Your task to perform on an android device: change keyboard looks Image 0: 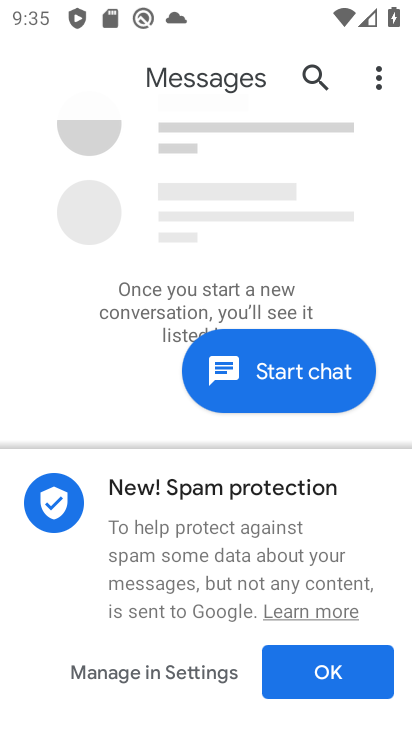
Step 0: press home button
Your task to perform on an android device: change keyboard looks Image 1: 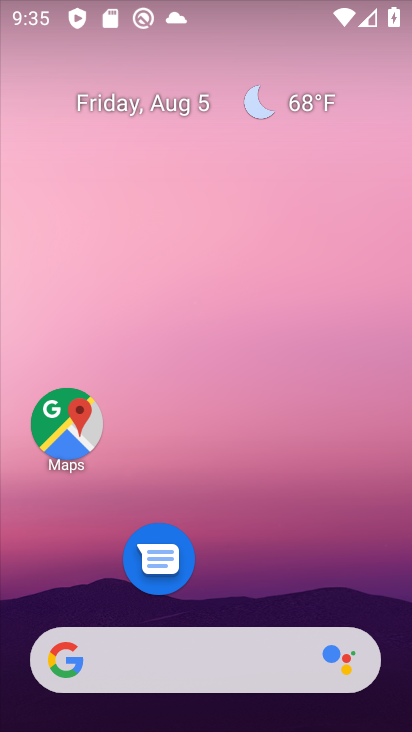
Step 1: drag from (256, 606) to (295, 83)
Your task to perform on an android device: change keyboard looks Image 2: 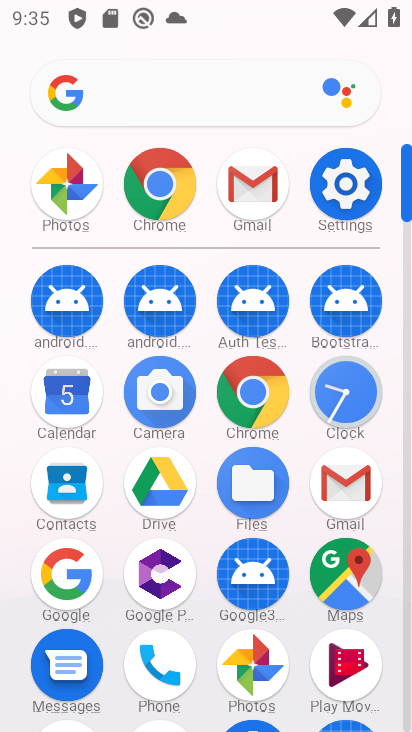
Step 2: click (366, 193)
Your task to perform on an android device: change keyboard looks Image 3: 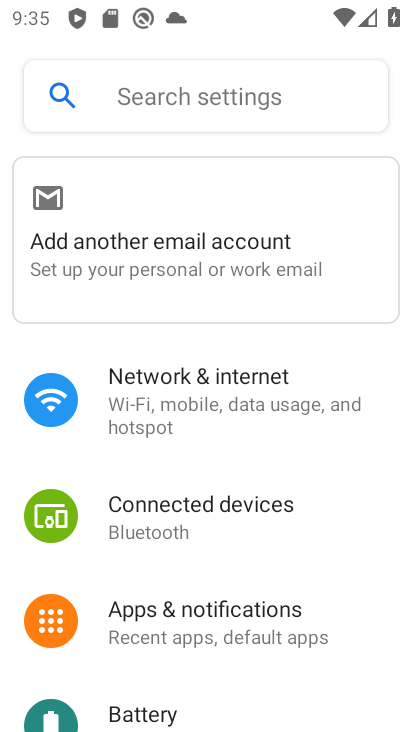
Step 3: drag from (285, 428) to (290, 235)
Your task to perform on an android device: change keyboard looks Image 4: 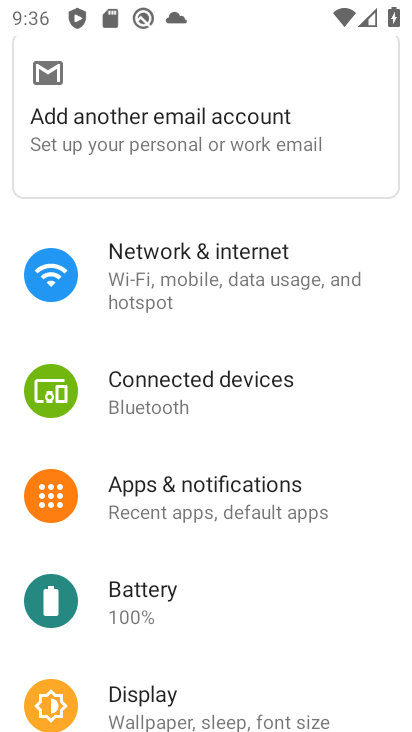
Step 4: drag from (234, 608) to (269, 309)
Your task to perform on an android device: change keyboard looks Image 5: 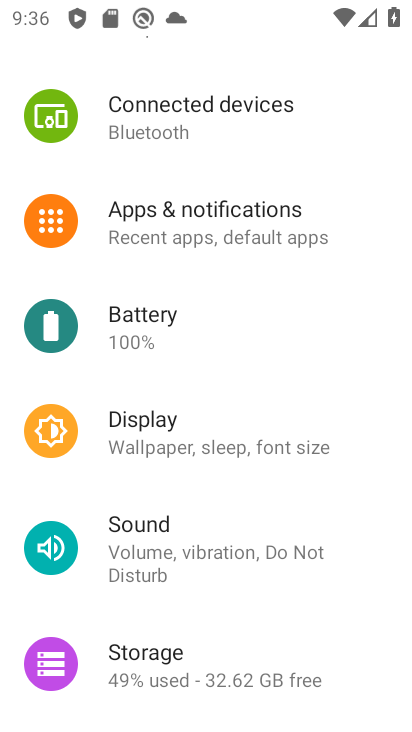
Step 5: drag from (157, 599) to (163, 288)
Your task to perform on an android device: change keyboard looks Image 6: 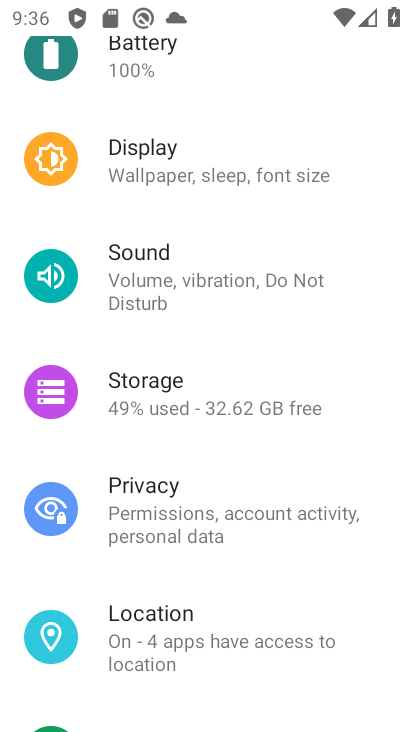
Step 6: drag from (171, 323) to (178, 690)
Your task to perform on an android device: change keyboard looks Image 7: 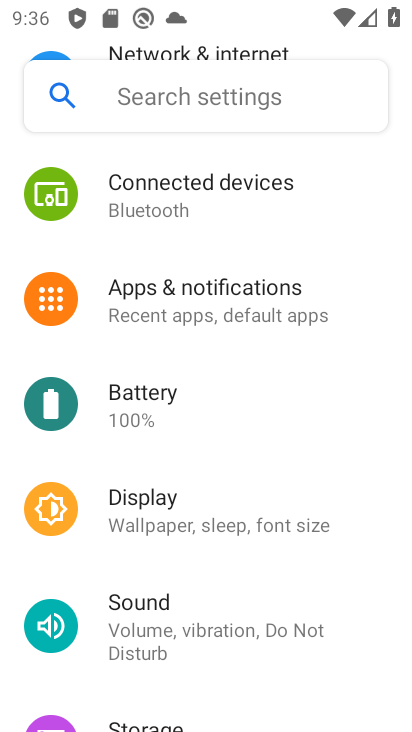
Step 7: drag from (234, 291) to (233, 461)
Your task to perform on an android device: change keyboard looks Image 8: 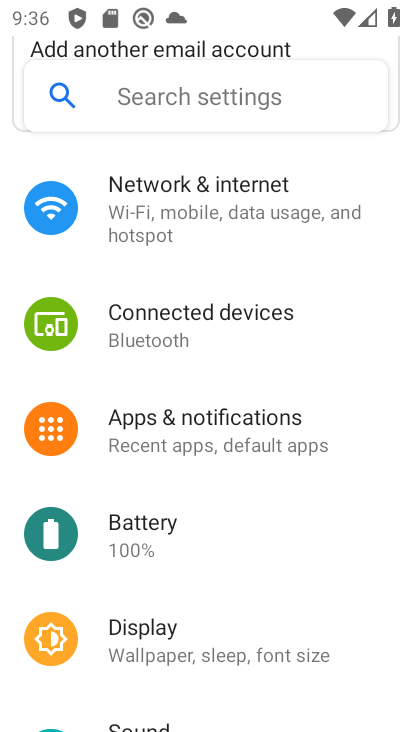
Step 8: click (191, 644)
Your task to perform on an android device: change keyboard looks Image 9: 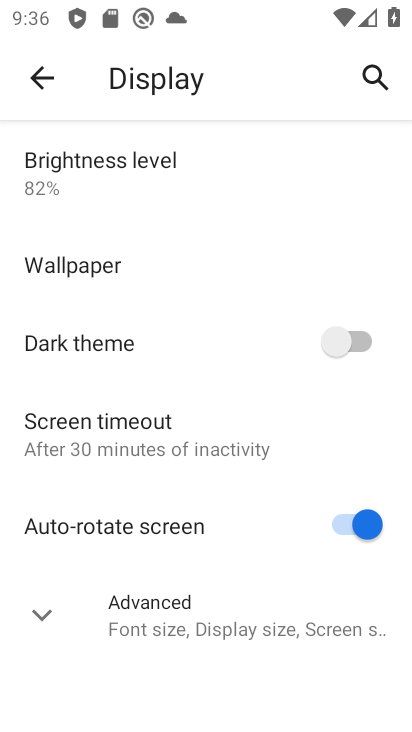
Step 9: click (42, 89)
Your task to perform on an android device: change keyboard looks Image 10: 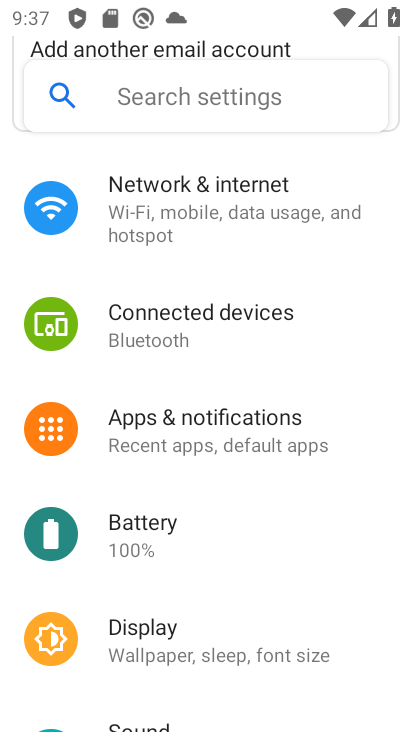
Step 10: drag from (160, 563) to (204, 183)
Your task to perform on an android device: change keyboard looks Image 11: 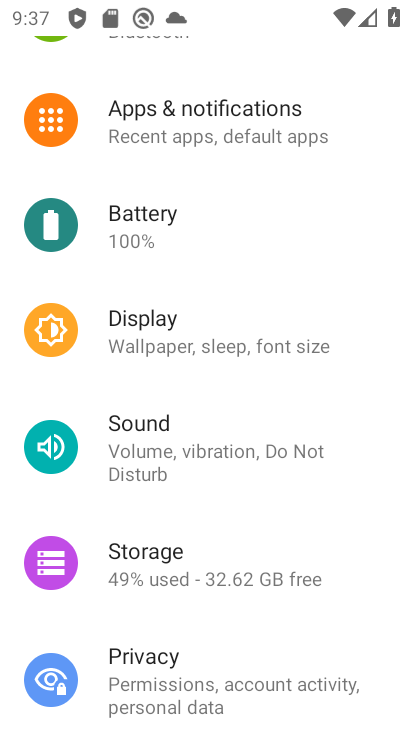
Step 11: drag from (220, 598) to (257, 248)
Your task to perform on an android device: change keyboard looks Image 12: 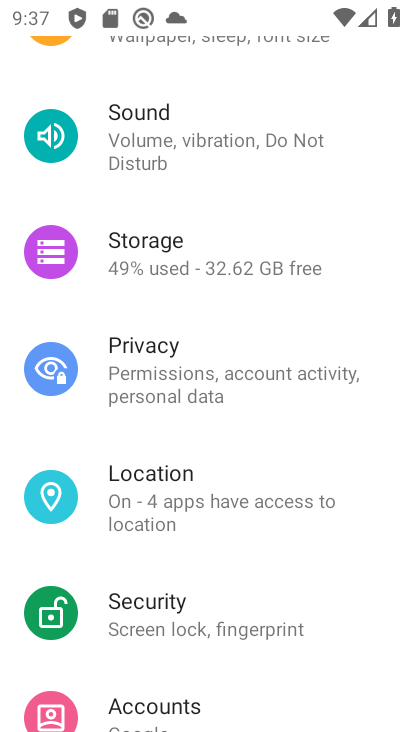
Step 12: drag from (190, 658) to (196, 333)
Your task to perform on an android device: change keyboard looks Image 13: 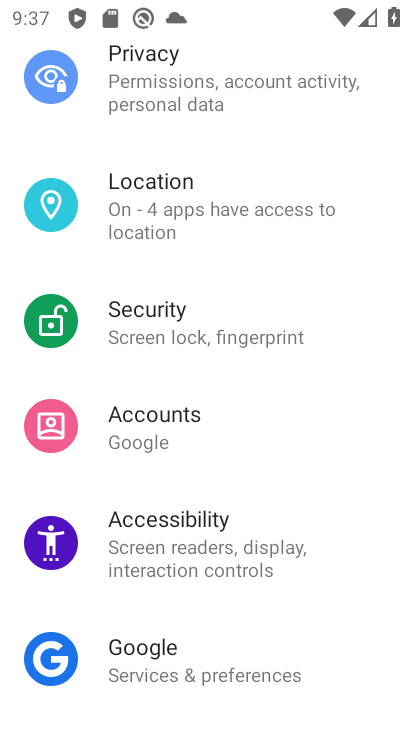
Step 13: drag from (210, 629) to (233, 277)
Your task to perform on an android device: change keyboard looks Image 14: 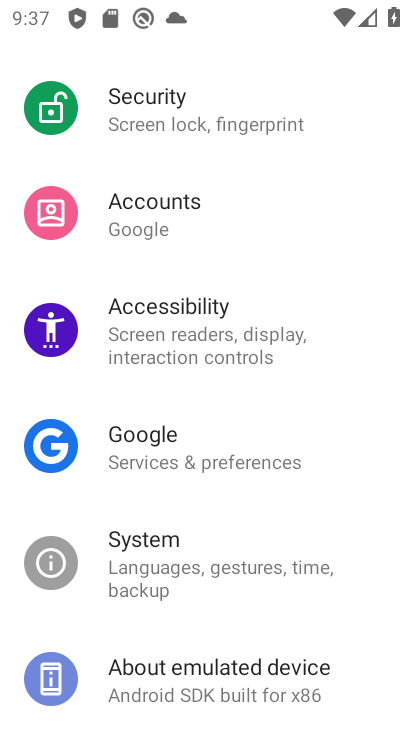
Step 14: click (190, 585)
Your task to perform on an android device: change keyboard looks Image 15: 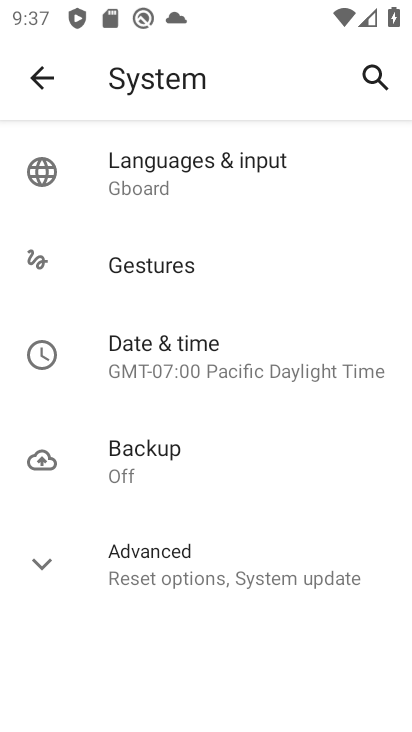
Step 15: click (195, 181)
Your task to perform on an android device: change keyboard looks Image 16: 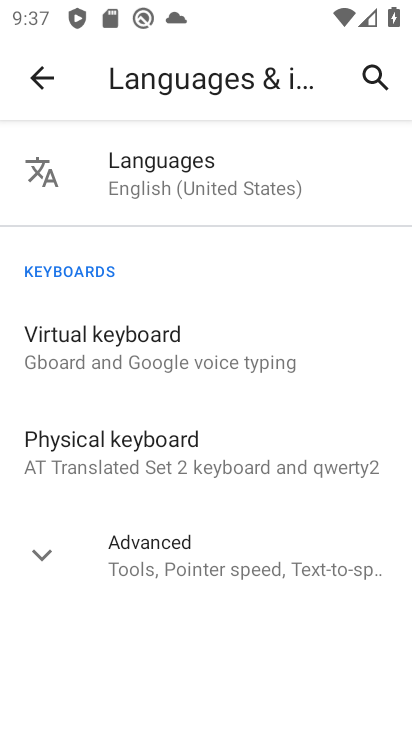
Step 16: click (157, 342)
Your task to perform on an android device: change keyboard looks Image 17: 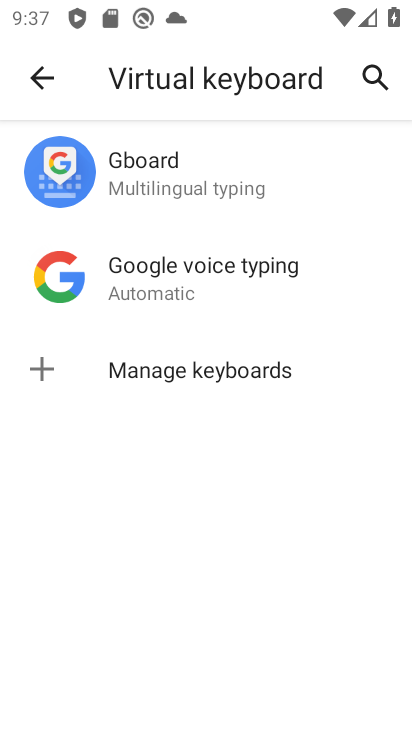
Step 17: click (170, 173)
Your task to perform on an android device: change keyboard looks Image 18: 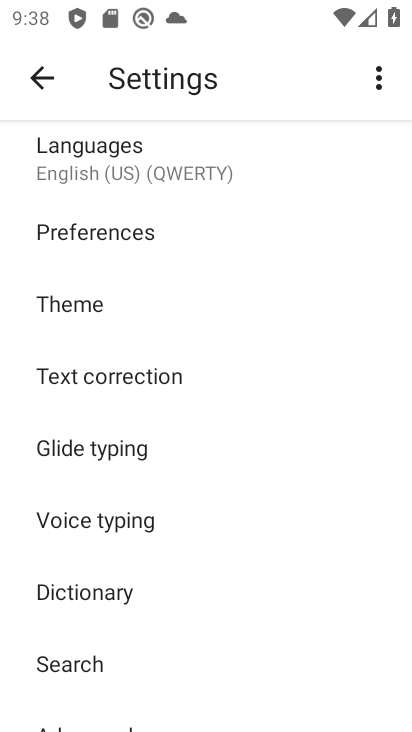
Step 18: click (98, 312)
Your task to perform on an android device: change keyboard looks Image 19: 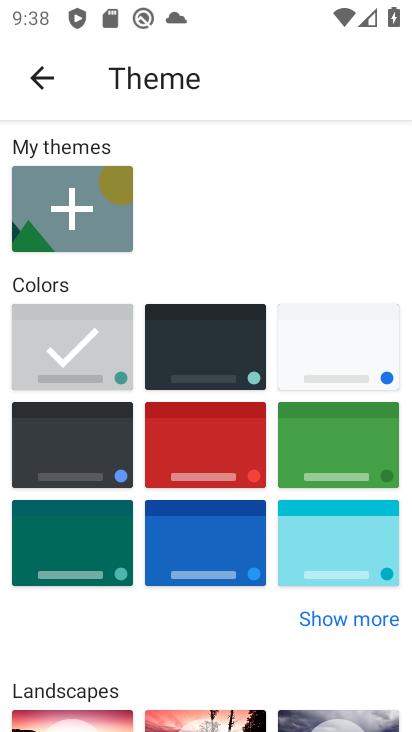
Step 19: click (176, 331)
Your task to perform on an android device: change keyboard looks Image 20: 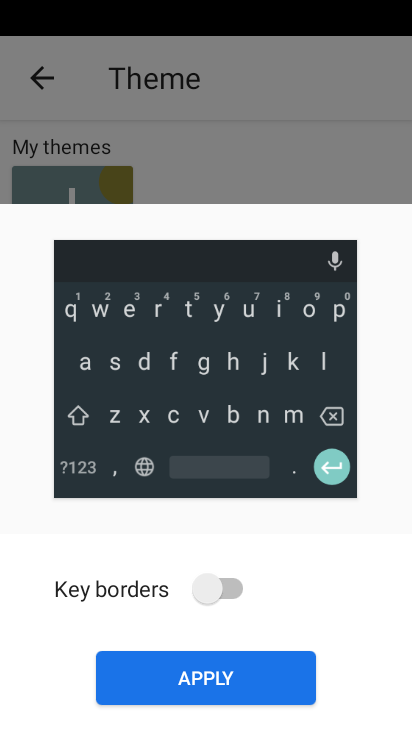
Step 20: click (235, 692)
Your task to perform on an android device: change keyboard looks Image 21: 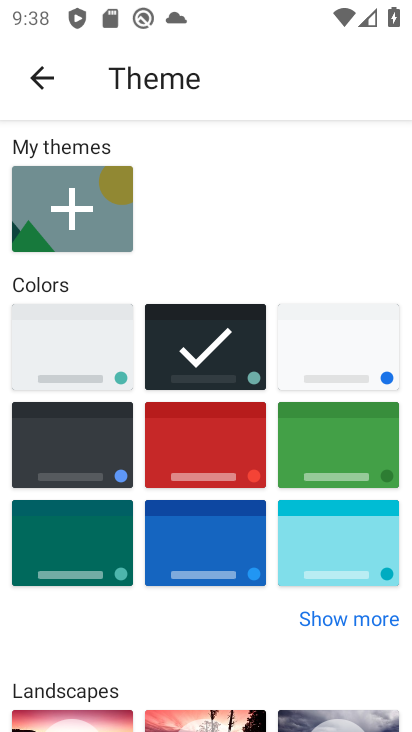
Step 21: task complete